Your task to perform on an android device: turn on priority inbox in the gmail app Image 0: 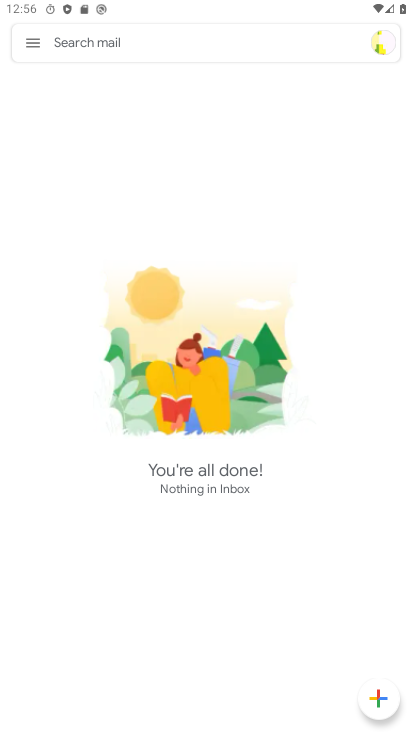
Step 0: click (33, 44)
Your task to perform on an android device: turn on priority inbox in the gmail app Image 1: 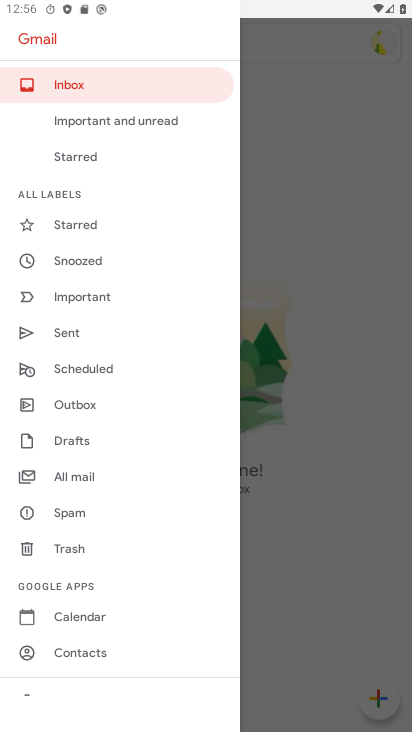
Step 1: drag from (170, 503) to (183, 207)
Your task to perform on an android device: turn on priority inbox in the gmail app Image 2: 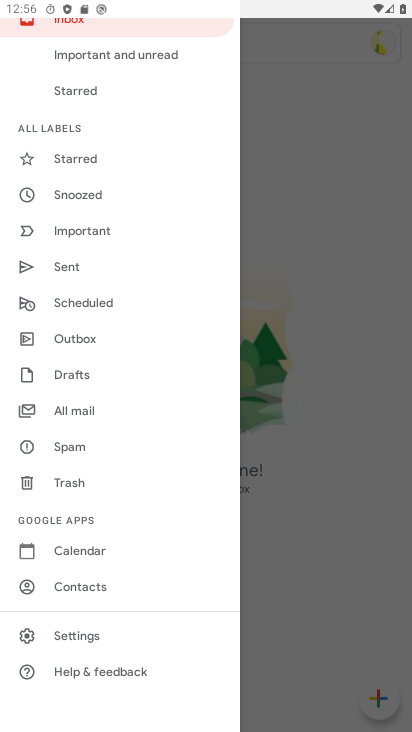
Step 2: click (100, 627)
Your task to perform on an android device: turn on priority inbox in the gmail app Image 3: 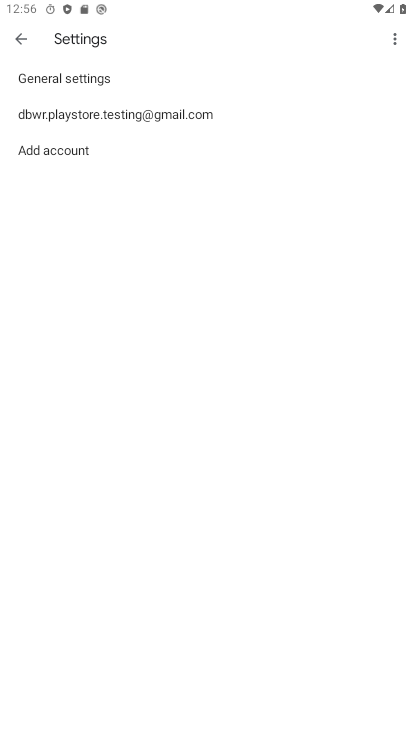
Step 3: click (135, 121)
Your task to perform on an android device: turn on priority inbox in the gmail app Image 4: 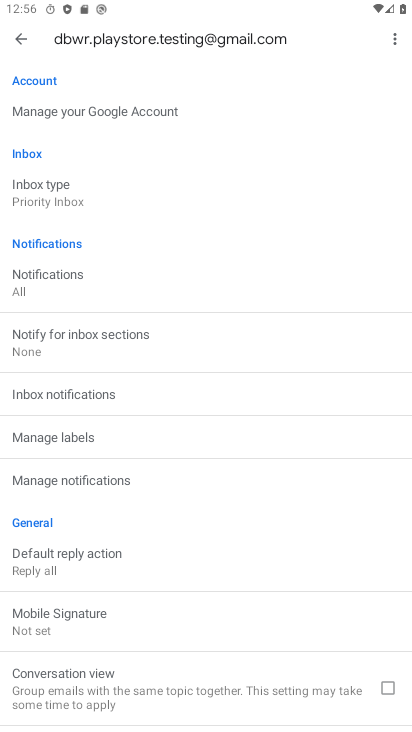
Step 4: task complete